Your task to perform on an android device: View the shopping cart on costco. Add "razer naga" to the cart on costco Image 0: 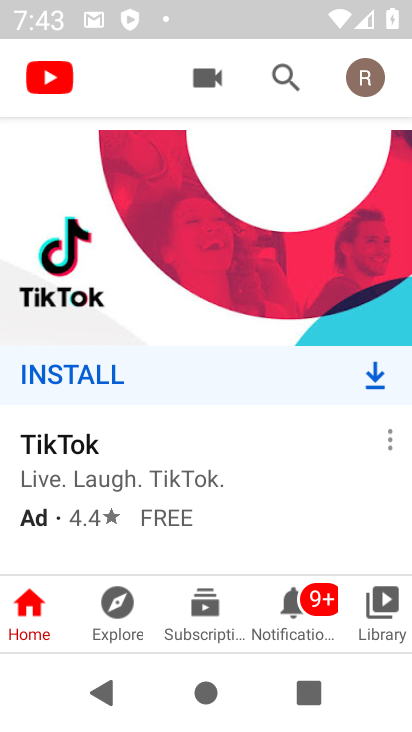
Step 0: press home button
Your task to perform on an android device: View the shopping cart on costco. Add "razer naga" to the cart on costco Image 1: 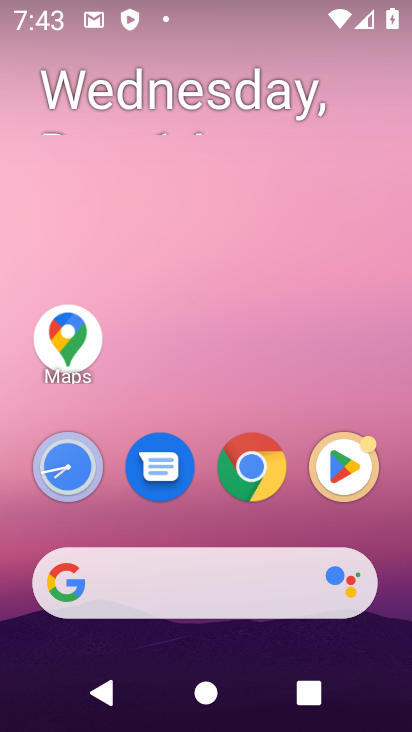
Step 1: click (228, 561)
Your task to perform on an android device: View the shopping cart on costco. Add "razer naga" to the cart on costco Image 2: 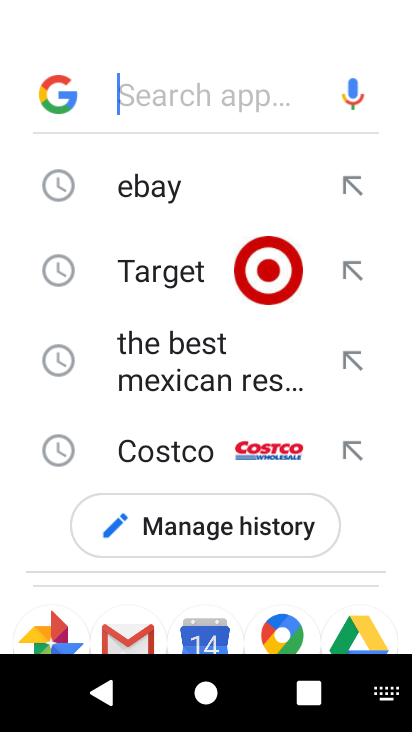
Step 2: type "costco"
Your task to perform on an android device: View the shopping cart on costco. Add "razer naga" to the cart on costco Image 3: 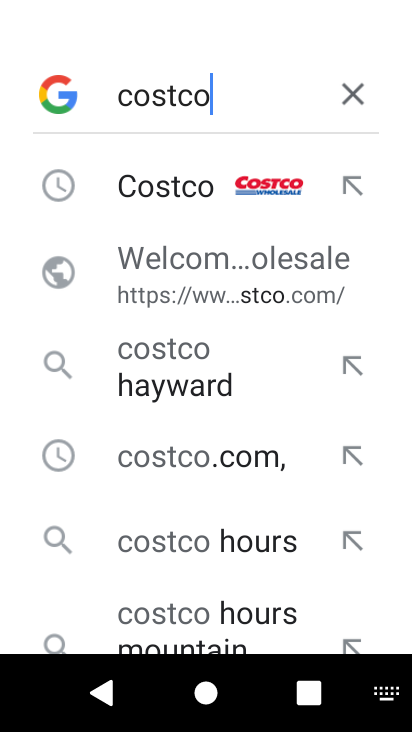
Step 3: click (169, 196)
Your task to perform on an android device: View the shopping cart on costco. Add "razer naga" to the cart on costco Image 4: 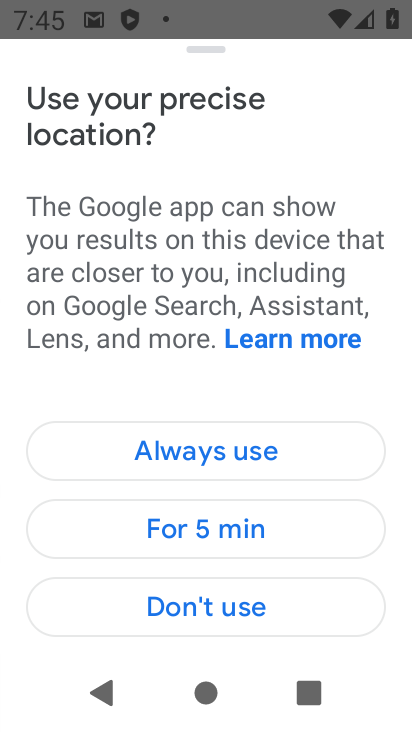
Step 4: click (154, 451)
Your task to perform on an android device: View the shopping cart on costco. Add "razer naga" to the cart on costco Image 5: 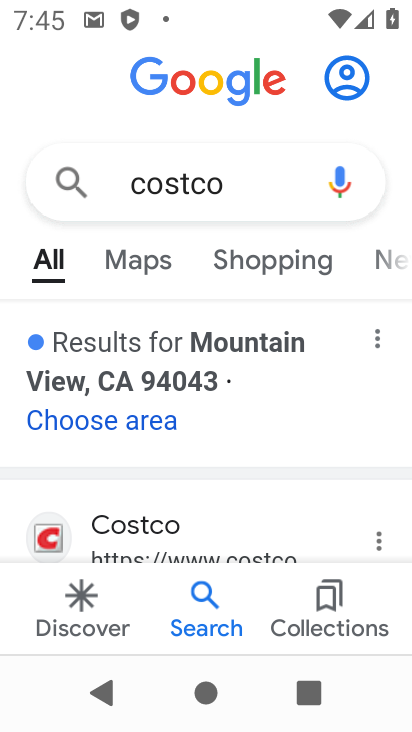
Step 5: click (122, 510)
Your task to perform on an android device: View the shopping cart on costco. Add "razer naga" to the cart on costco Image 6: 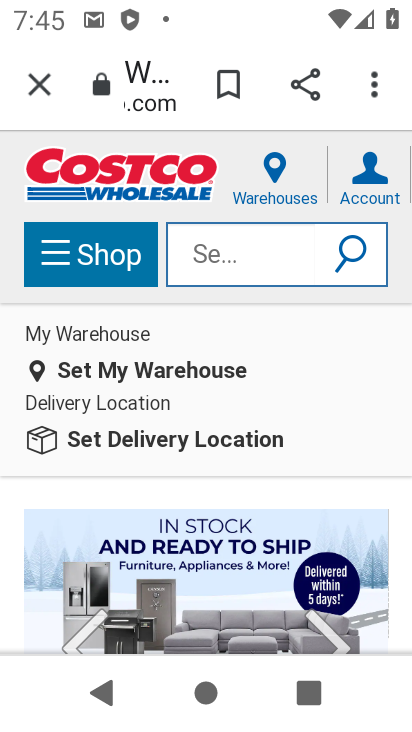
Step 6: click (243, 262)
Your task to perform on an android device: View the shopping cart on costco. Add "razer naga" to the cart on costco Image 7: 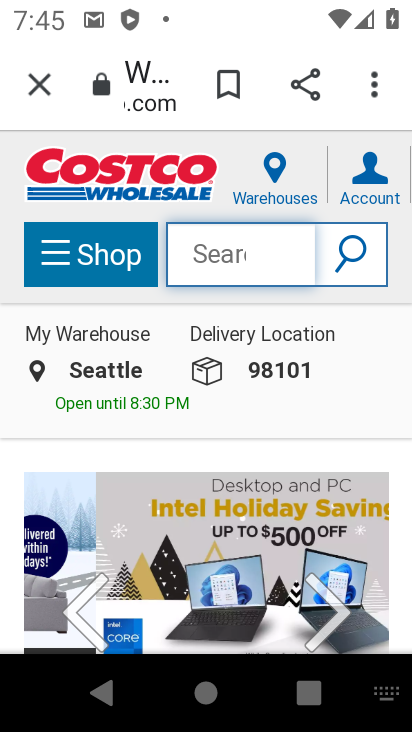
Step 7: type "razer naga"
Your task to perform on an android device: View the shopping cart on costco. Add "razer naga" to the cart on costco Image 8: 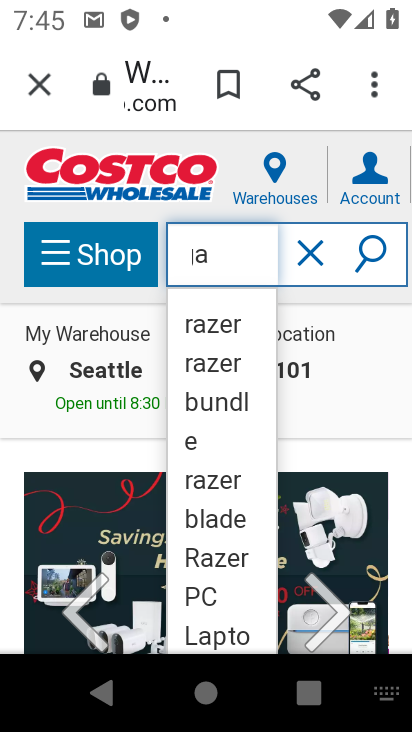
Step 8: click (360, 252)
Your task to perform on an android device: View the shopping cart on costco. Add "razer naga" to the cart on costco Image 9: 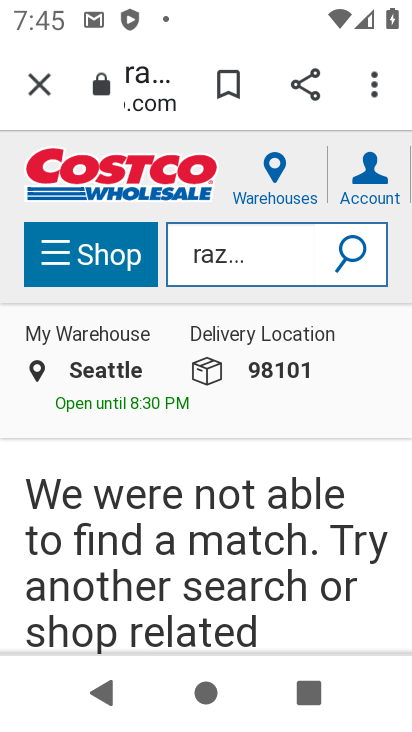
Step 9: task complete